Your task to perform on an android device: What's the weather? Image 0: 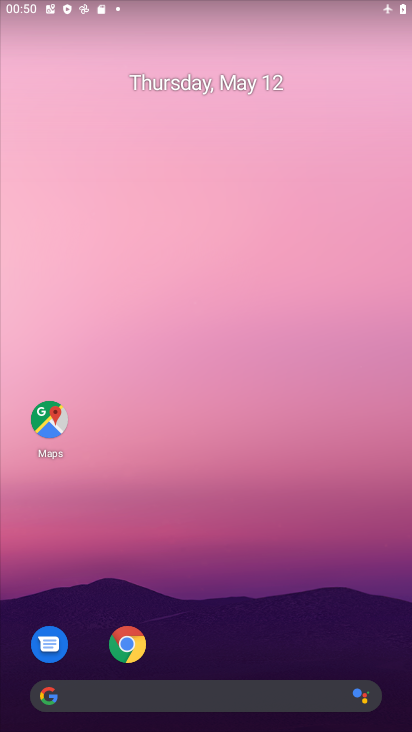
Step 0: click (237, 691)
Your task to perform on an android device: What's the weather? Image 1: 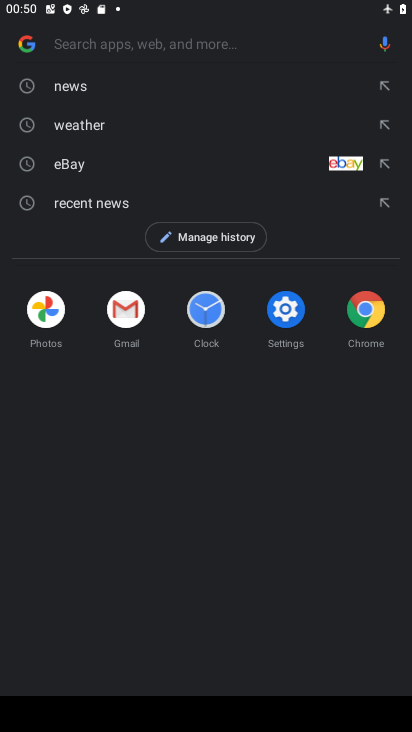
Step 1: click (105, 132)
Your task to perform on an android device: What's the weather? Image 2: 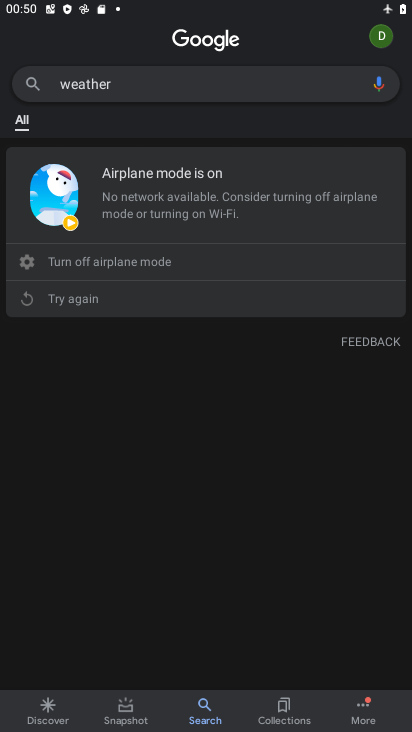
Step 2: task complete